Your task to perform on an android device: Go to Yahoo.com Image 0: 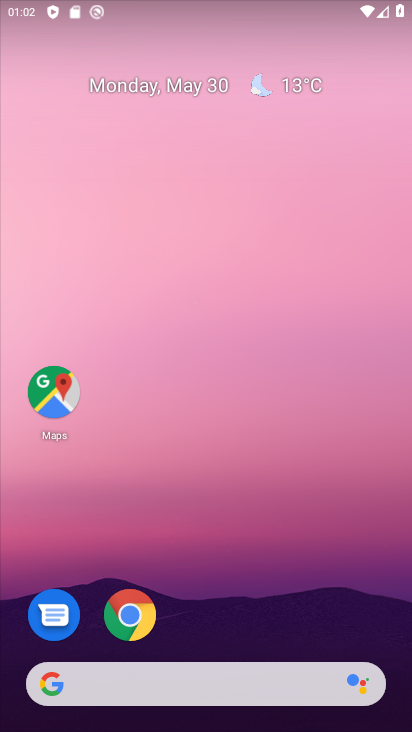
Step 0: click (106, 593)
Your task to perform on an android device: Go to Yahoo.com Image 1: 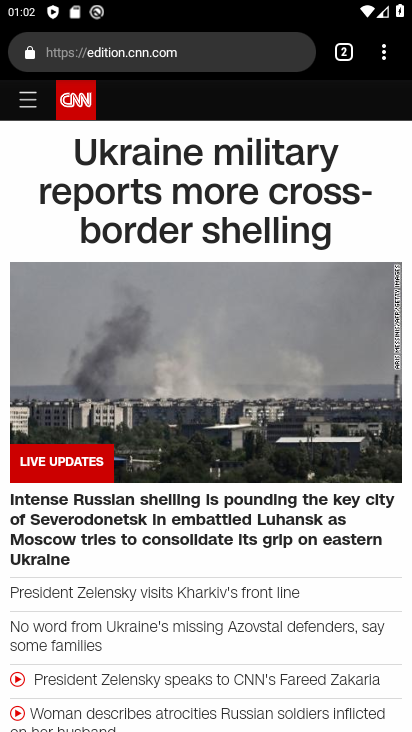
Step 1: click (358, 55)
Your task to perform on an android device: Go to Yahoo.com Image 2: 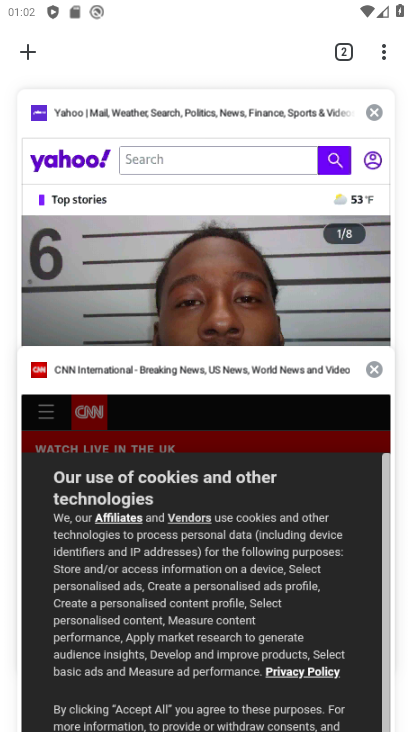
Step 2: click (69, 186)
Your task to perform on an android device: Go to Yahoo.com Image 3: 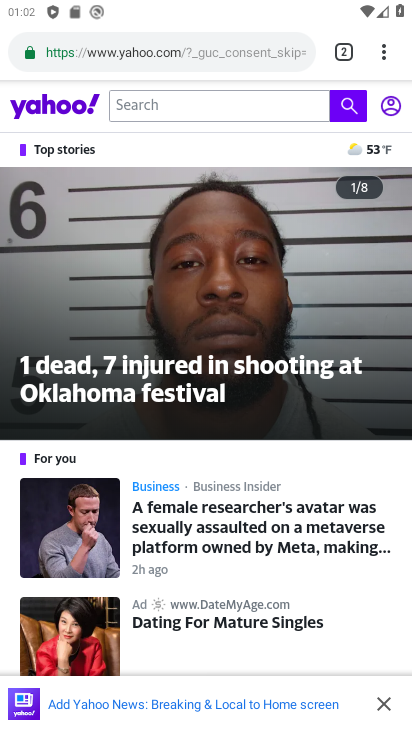
Step 3: task complete